Your task to perform on an android device: check the backup settings in the google photos Image 0: 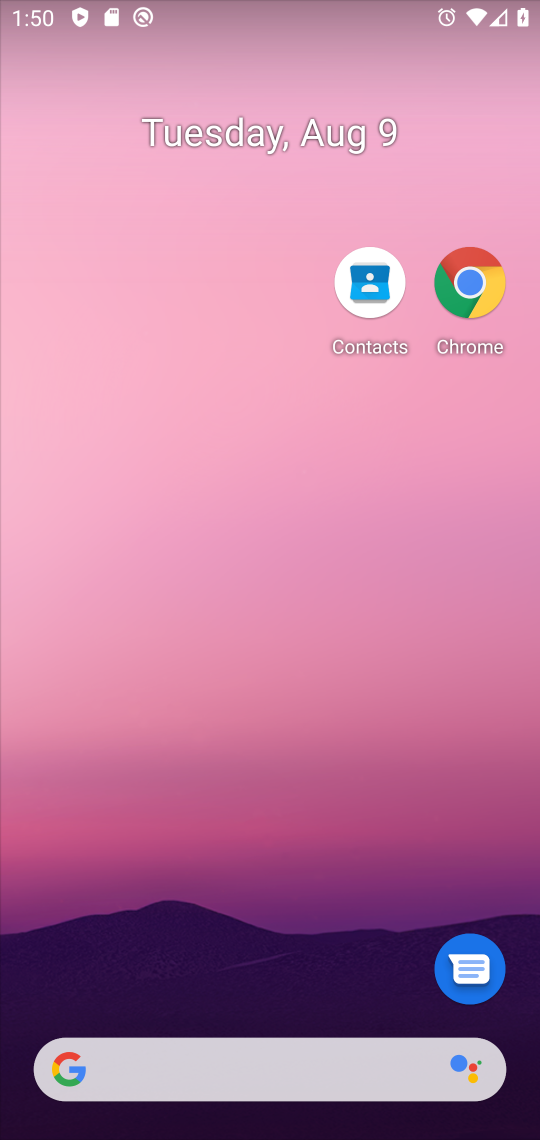
Step 0: drag from (238, 972) to (172, 200)
Your task to perform on an android device: check the backup settings in the google photos Image 1: 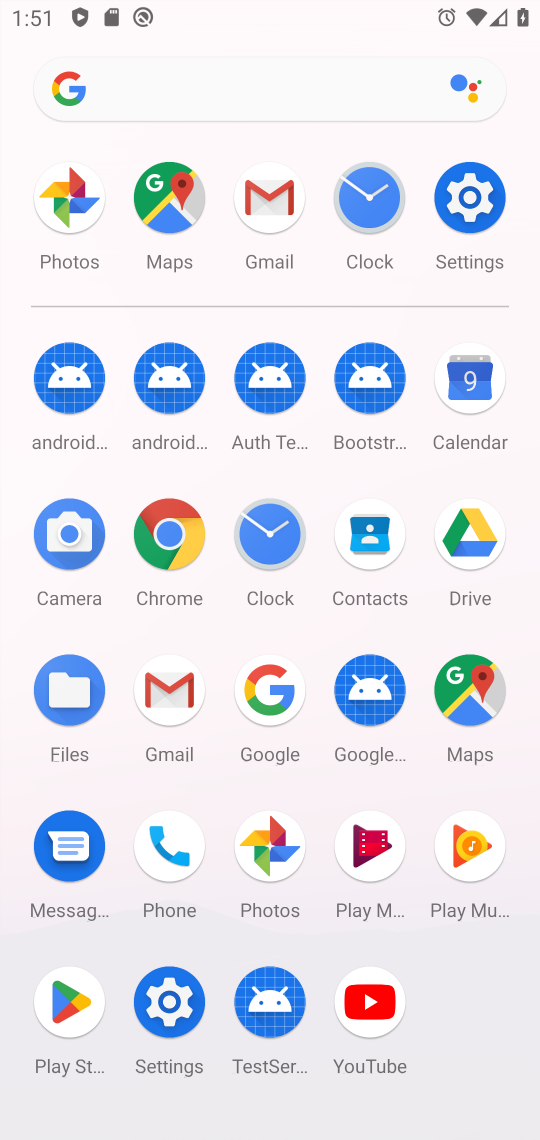
Step 1: click (284, 834)
Your task to perform on an android device: check the backup settings in the google photos Image 2: 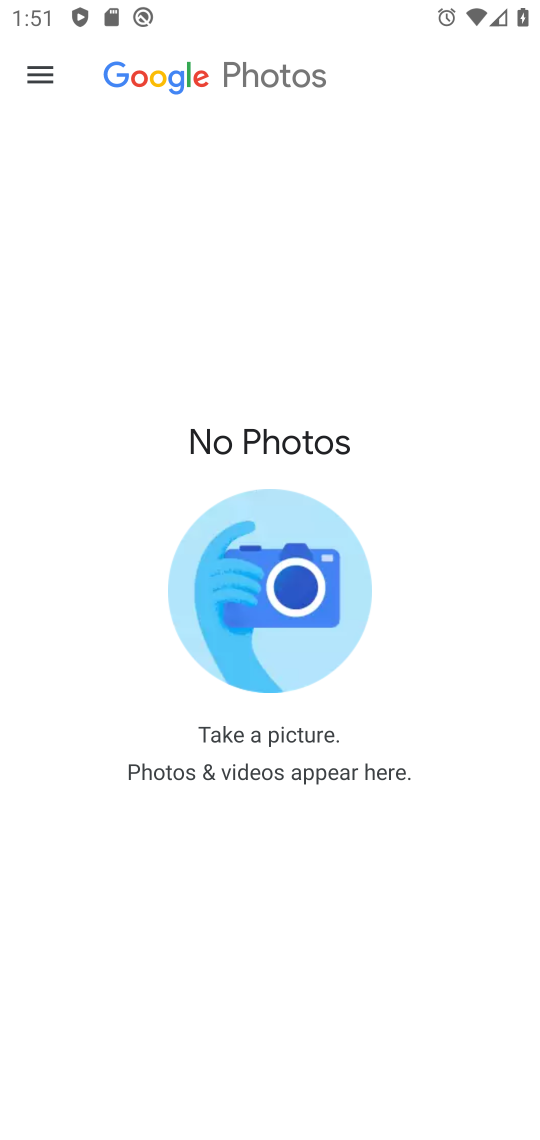
Step 2: click (42, 74)
Your task to perform on an android device: check the backup settings in the google photos Image 3: 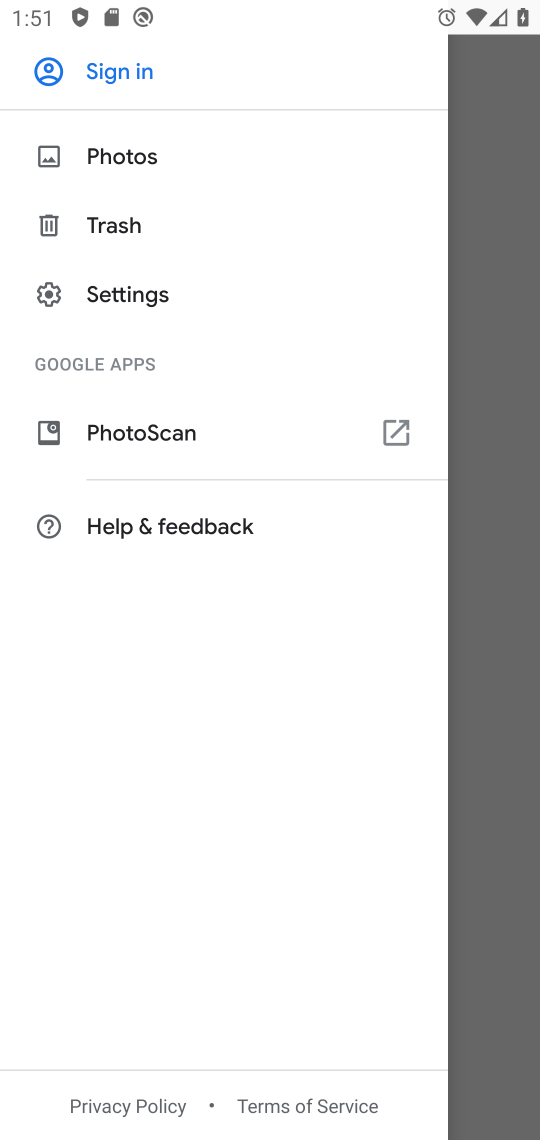
Step 3: click (50, 270)
Your task to perform on an android device: check the backup settings in the google photos Image 4: 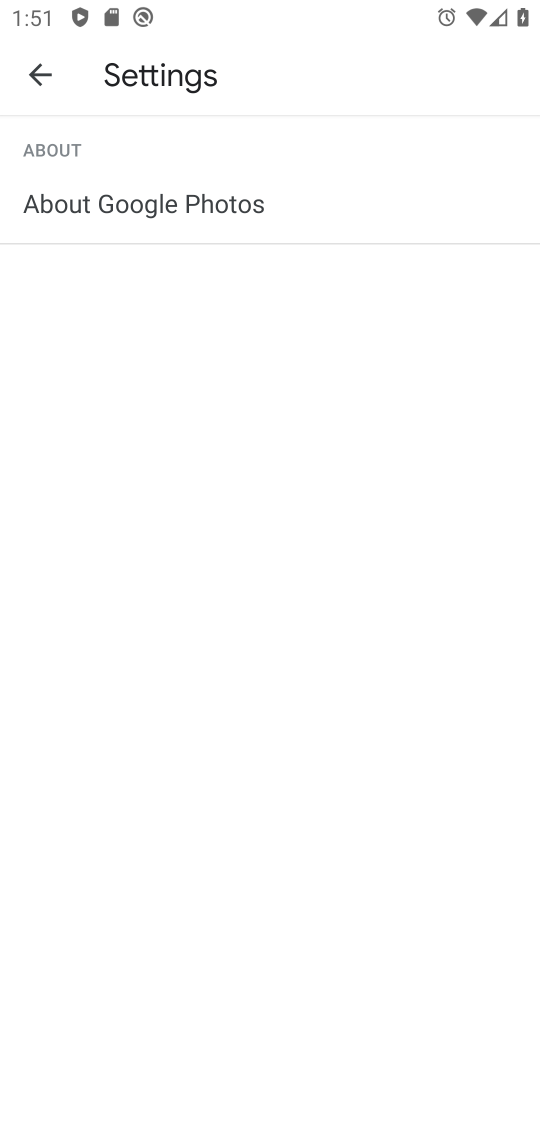
Step 4: task complete